Your task to perform on an android device: check out phone information Image 0: 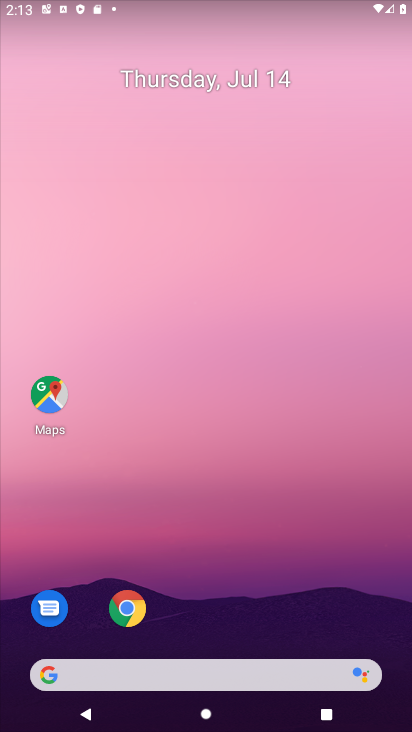
Step 0: drag from (368, 626) to (316, 161)
Your task to perform on an android device: check out phone information Image 1: 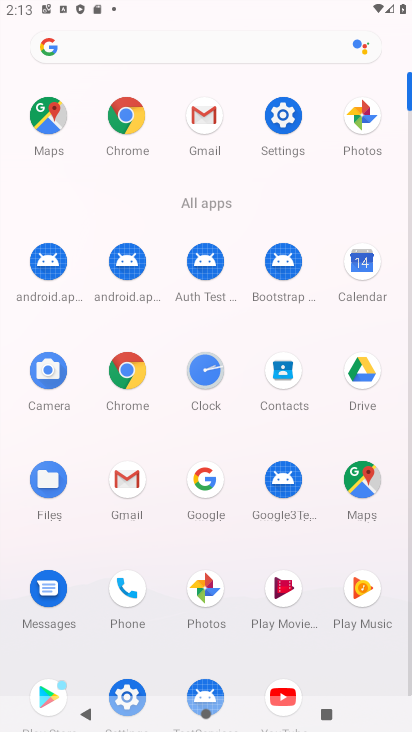
Step 1: click (411, 681)
Your task to perform on an android device: check out phone information Image 2: 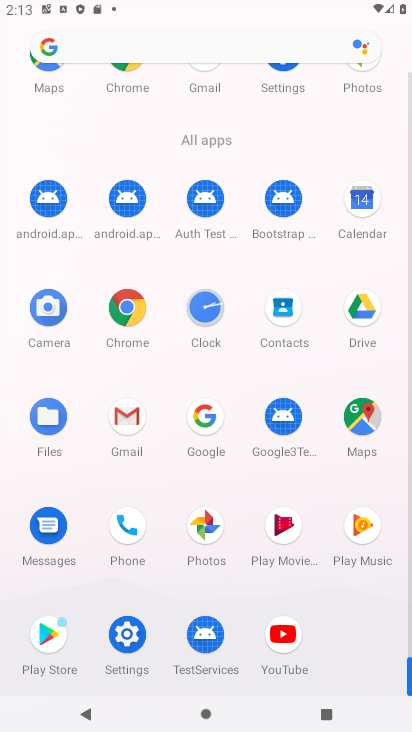
Step 2: click (127, 635)
Your task to perform on an android device: check out phone information Image 3: 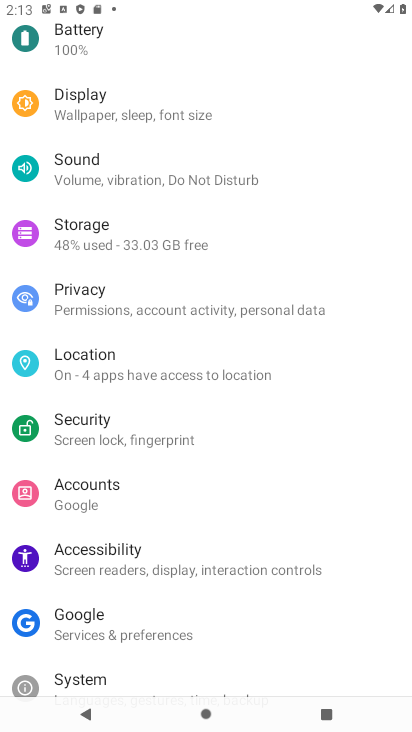
Step 3: drag from (376, 630) to (328, 205)
Your task to perform on an android device: check out phone information Image 4: 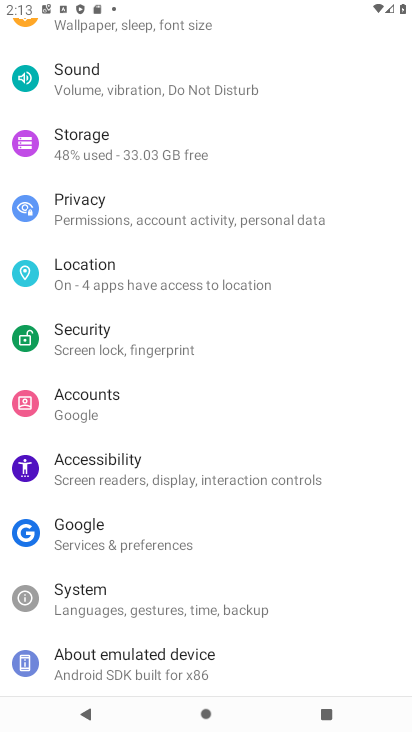
Step 4: click (97, 652)
Your task to perform on an android device: check out phone information Image 5: 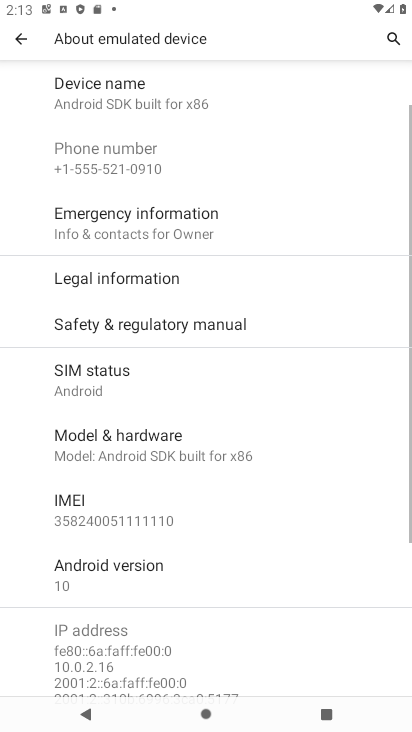
Step 5: task complete